Your task to perform on an android device: open the mobile data screen to see how much data has been used Image 0: 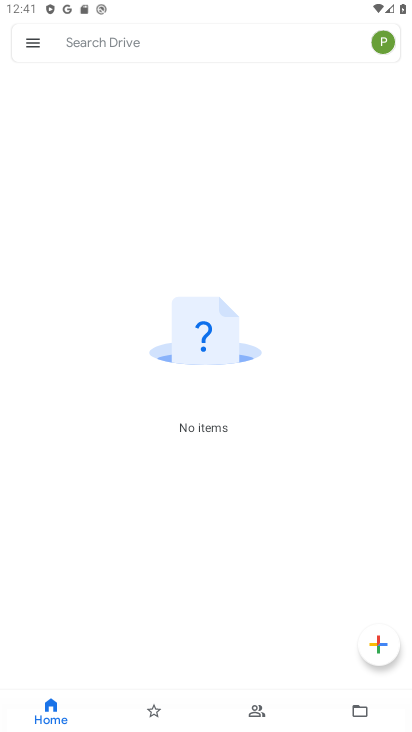
Step 0: press home button
Your task to perform on an android device: open the mobile data screen to see how much data has been used Image 1: 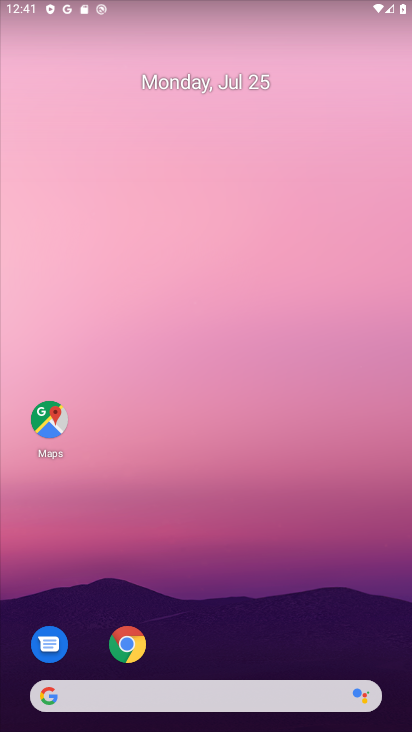
Step 1: drag from (245, 644) to (256, 20)
Your task to perform on an android device: open the mobile data screen to see how much data has been used Image 2: 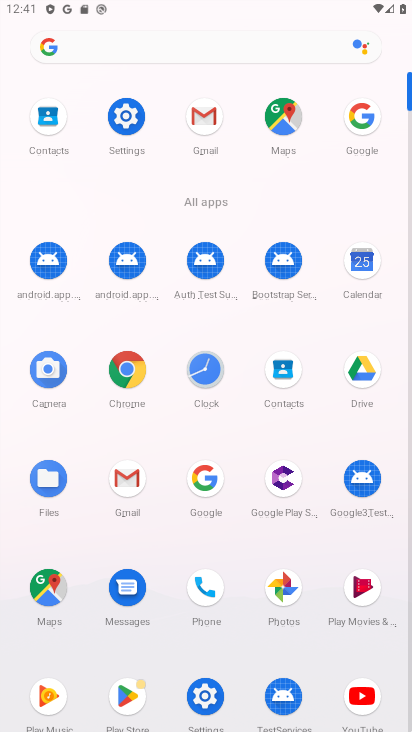
Step 2: click (111, 121)
Your task to perform on an android device: open the mobile data screen to see how much data has been used Image 3: 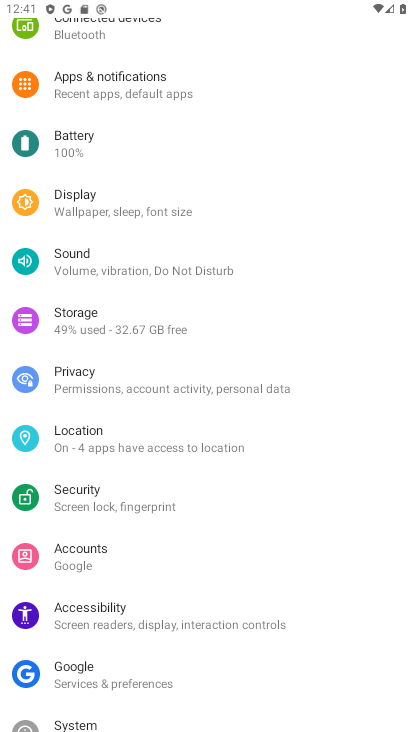
Step 3: drag from (117, 37) to (151, 320)
Your task to perform on an android device: open the mobile data screen to see how much data has been used Image 4: 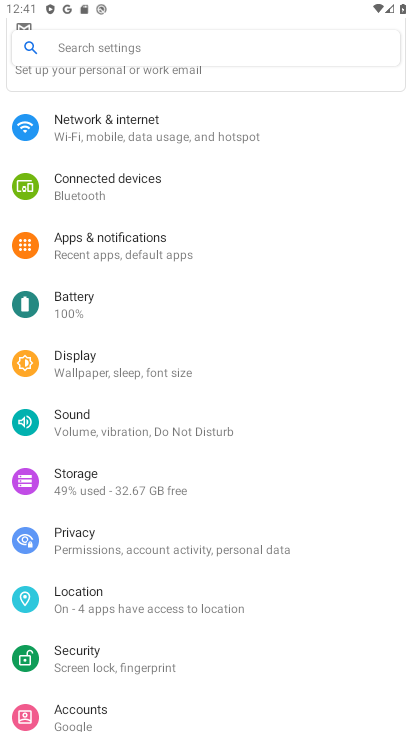
Step 4: click (166, 121)
Your task to perform on an android device: open the mobile data screen to see how much data has been used Image 5: 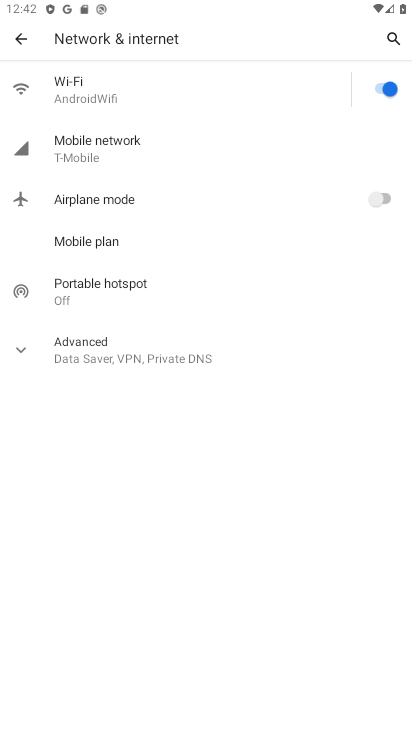
Step 5: click (162, 158)
Your task to perform on an android device: open the mobile data screen to see how much data has been used Image 6: 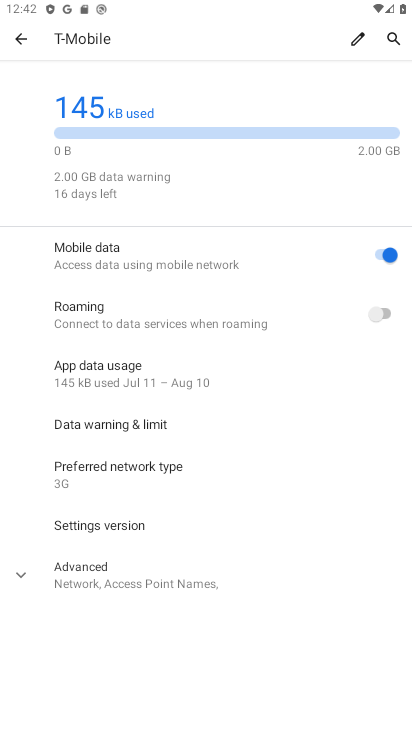
Step 6: click (145, 376)
Your task to perform on an android device: open the mobile data screen to see how much data has been used Image 7: 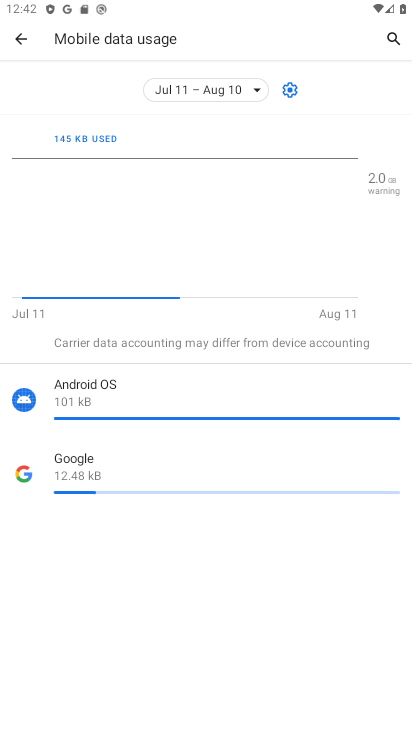
Step 7: task complete